Your task to perform on an android device: Open Google Maps Image 0: 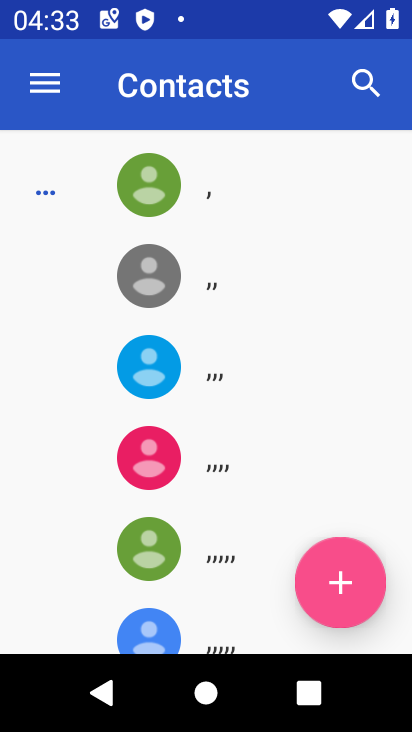
Step 0: press home button
Your task to perform on an android device: Open Google Maps Image 1: 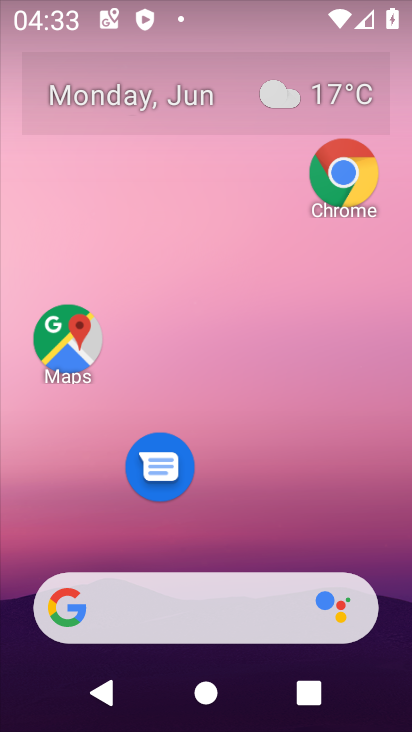
Step 1: click (72, 328)
Your task to perform on an android device: Open Google Maps Image 2: 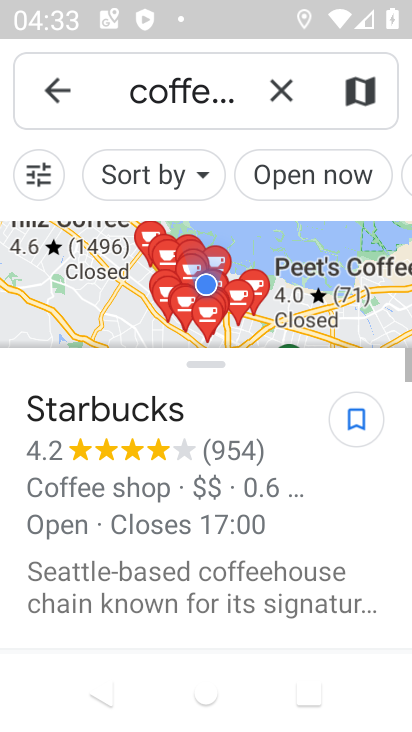
Step 2: click (277, 88)
Your task to perform on an android device: Open Google Maps Image 3: 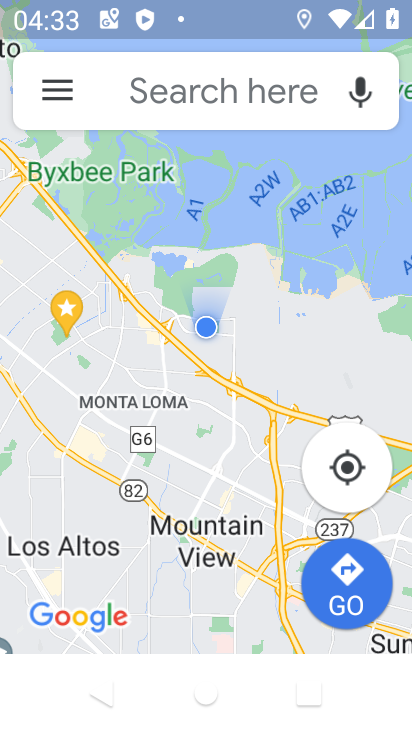
Step 3: task complete